Your task to perform on an android device: Open eBay Image 0: 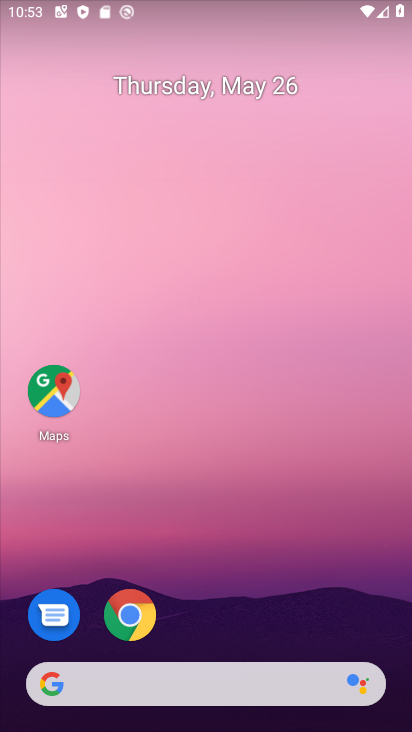
Step 0: click (143, 626)
Your task to perform on an android device: Open eBay Image 1: 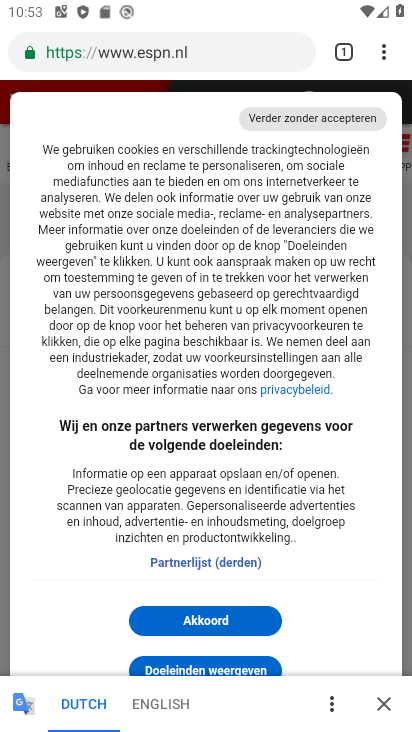
Step 1: click (339, 50)
Your task to perform on an android device: Open eBay Image 2: 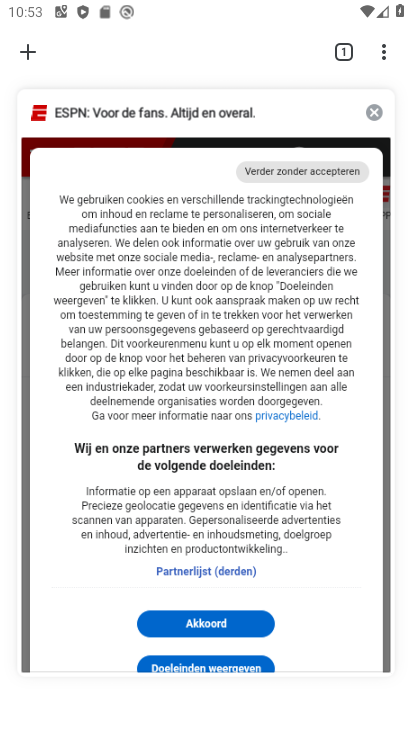
Step 2: click (20, 41)
Your task to perform on an android device: Open eBay Image 3: 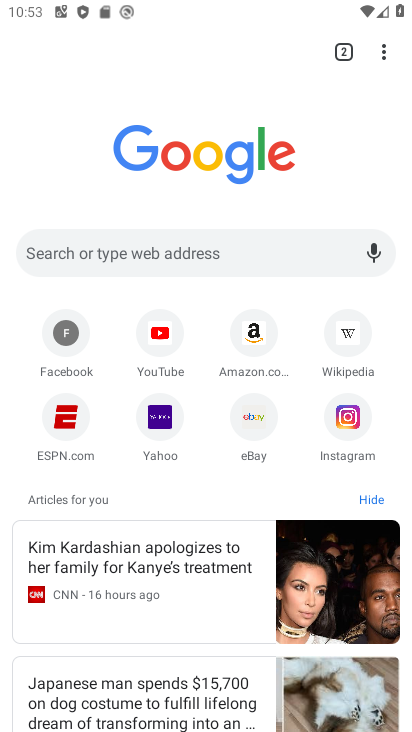
Step 3: click (251, 428)
Your task to perform on an android device: Open eBay Image 4: 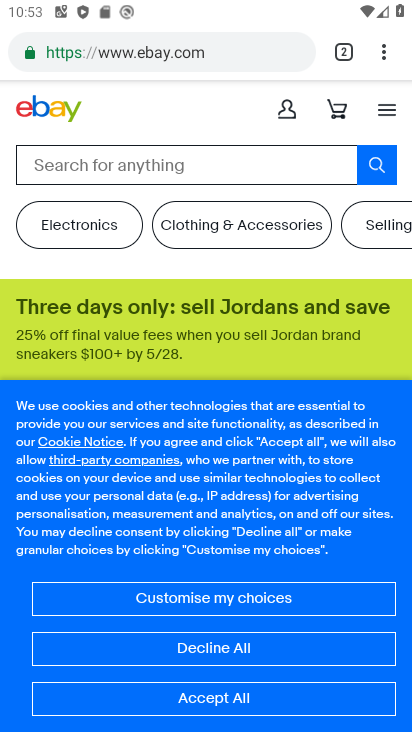
Step 4: task complete